Your task to perform on an android device: turn notification dots on Image 0: 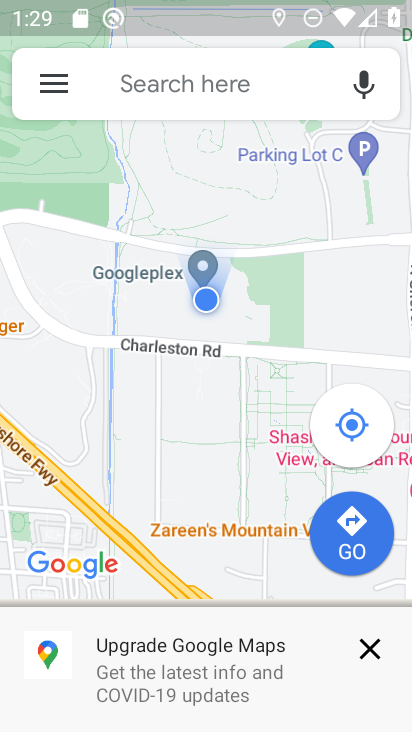
Step 0: press home button
Your task to perform on an android device: turn notification dots on Image 1: 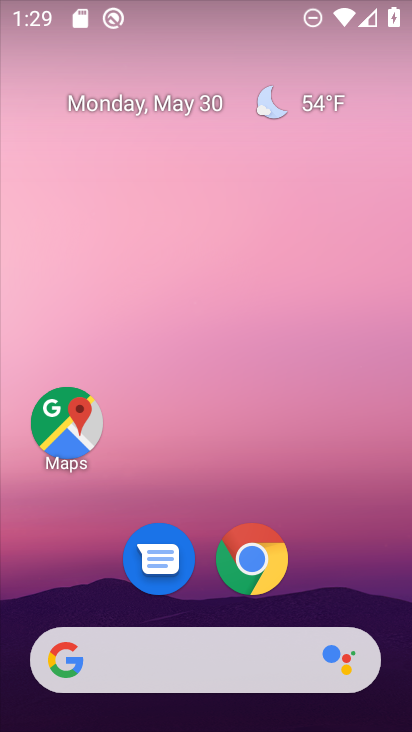
Step 1: drag from (328, 594) to (292, 66)
Your task to perform on an android device: turn notification dots on Image 2: 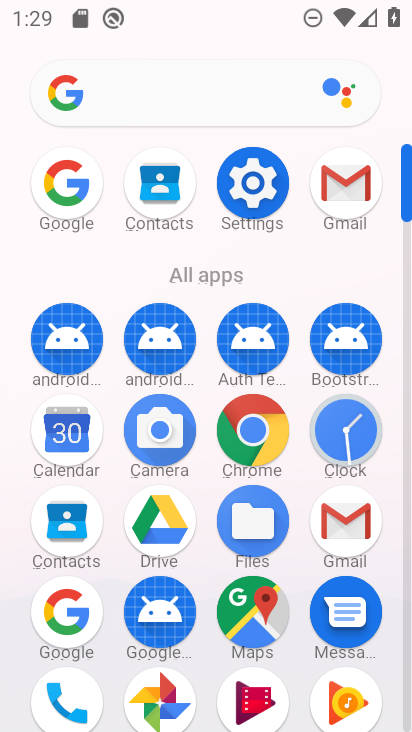
Step 2: click (257, 193)
Your task to perform on an android device: turn notification dots on Image 3: 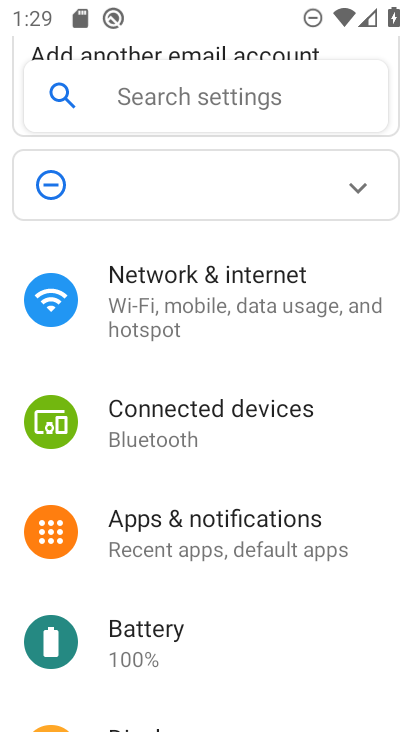
Step 3: drag from (205, 617) to (211, 398)
Your task to perform on an android device: turn notification dots on Image 4: 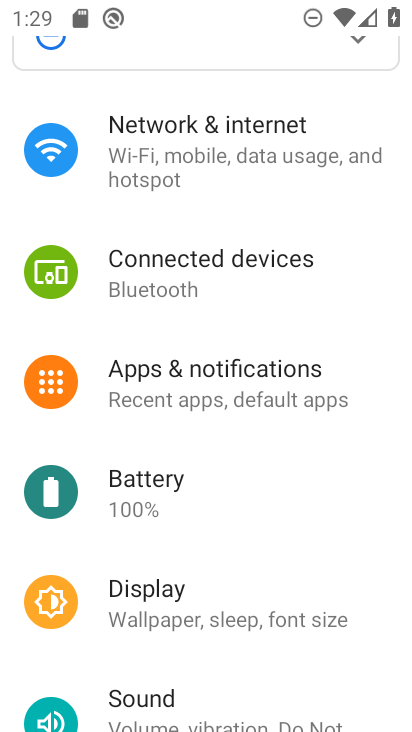
Step 4: click (229, 390)
Your task to perform on an android device: turn notification dots on Image 5: 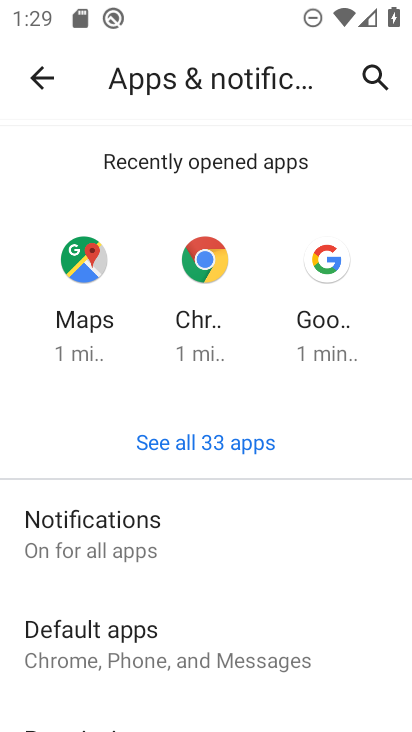
Step 5: click (149, 549)
Your task to perform on an android device: turn notification dots on Image 6: 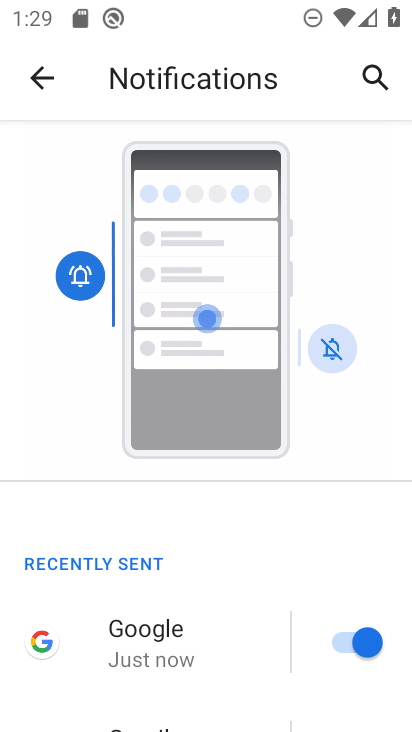
Step 6: drag from (189, 637) to (195, 88)
Your task to perform on an android device: turn notification dots on Image 7: 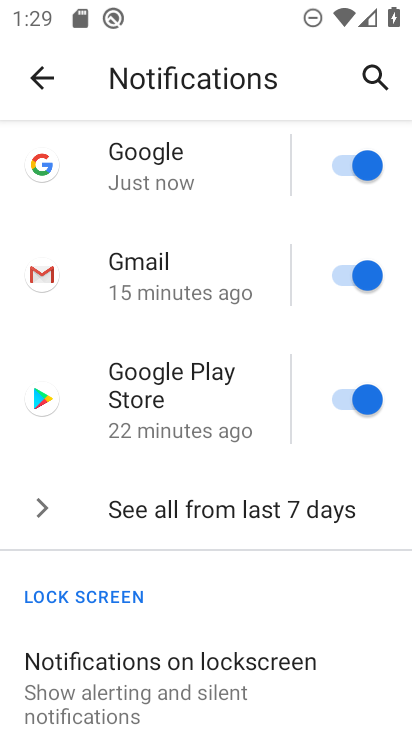
Step 7: drag from (174, 632) to (290, 117)
Your task to perform on an android device: turn notification dots on Image 8: 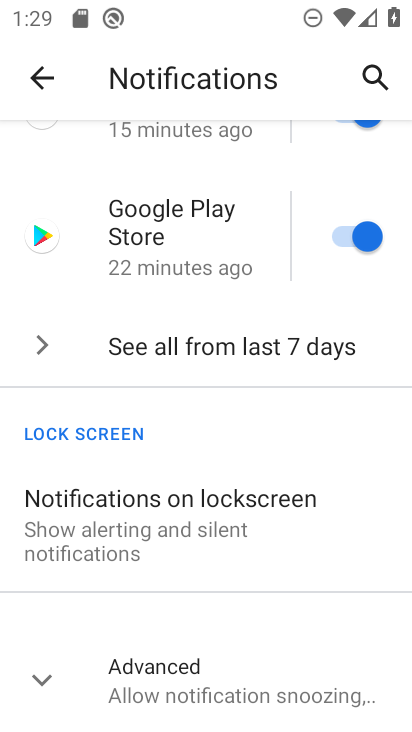
Step 8: click (255, 663)
Your task to perform on an android device: turn notification dots on Image 9: 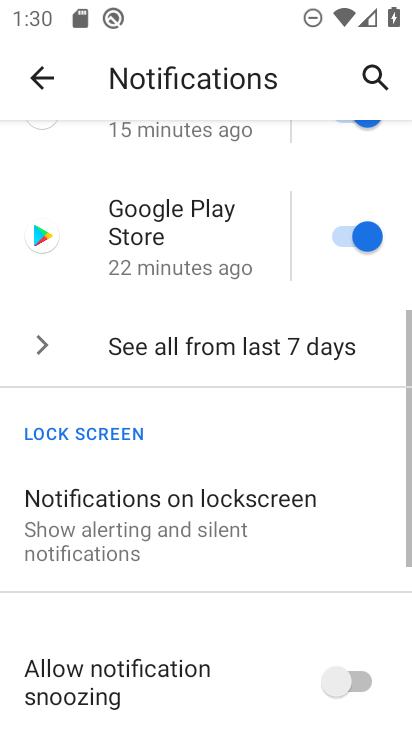
Step 9: task complete